Your task to perform on an android device: delete the emails in spam in the gmail app Image 0: 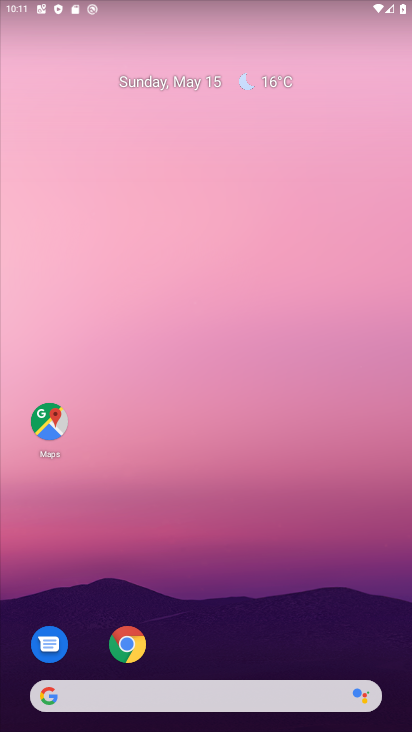
Step 0: drag from (288, 644) to (255, 148)
Your task to perform on an android device: delete the emails in spam in the gmail app Image 1: 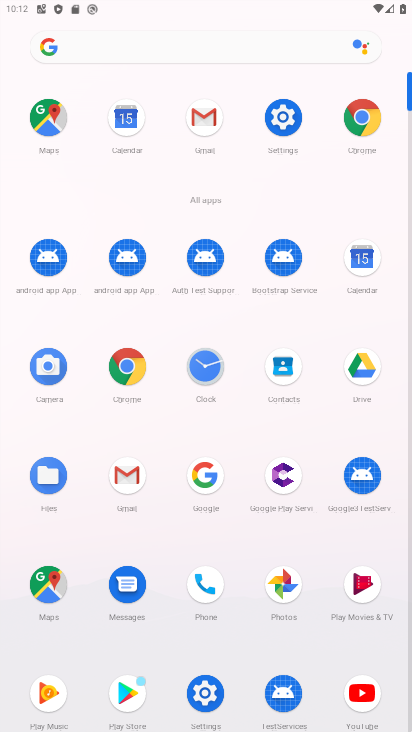
Step 1: click (133, 461)
Your task to perform on an android device: delete the emails in spam in the gmail app Image 2: 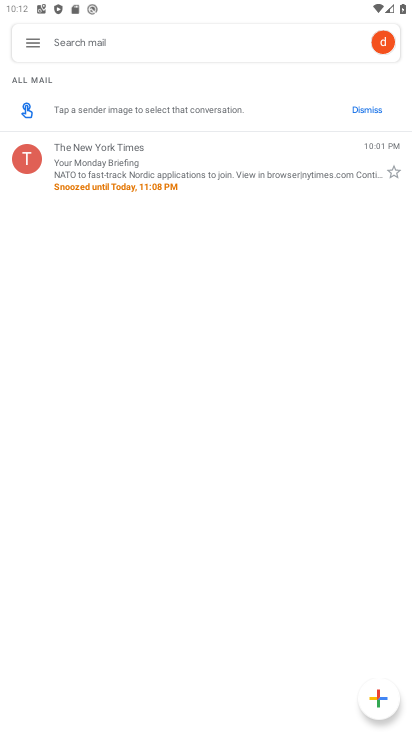
Step 2: click (35, 35)
Your task to perform on an android device: delete the emails in spam in the gmail app Image 3: 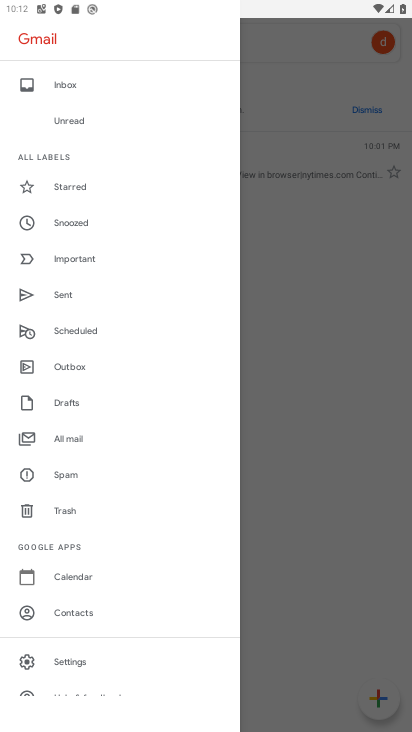
Step 3: click (74, 473)
Your task to perform on an android device: delete the emails in spam in the gmail app Image 4: 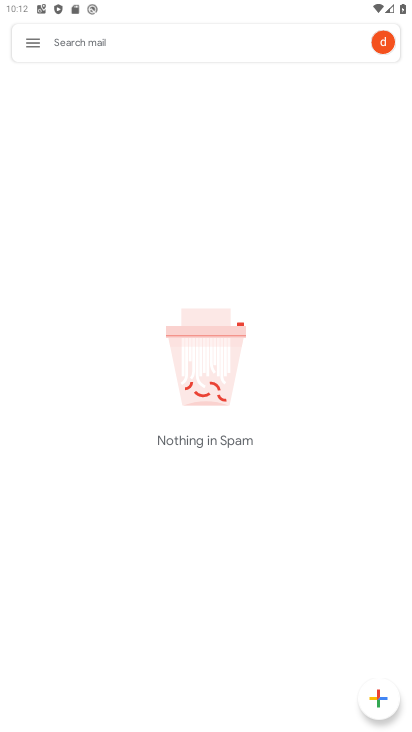
Step 4: task complete